Your task to perform on an android device: Set the phone to "Do not disturb". Image 0: 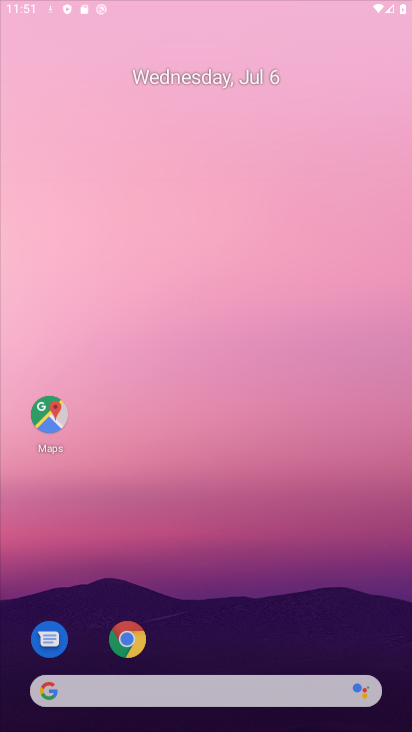
Step 0: drag from (226, 417) to (252, 330)
Your task to perform on an android device: Set the phone to "Do not disturb". Image 1: 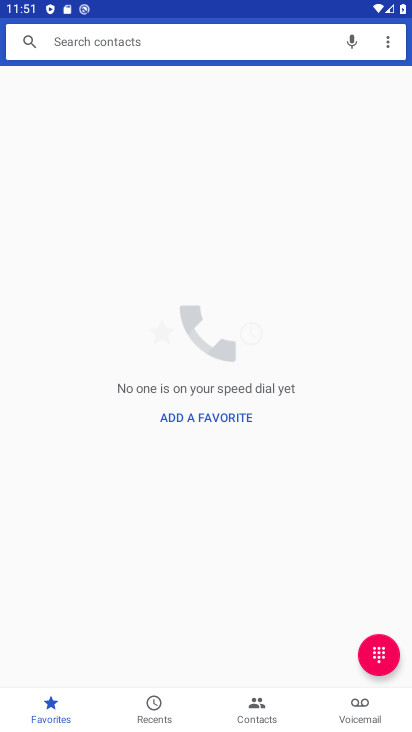
Step 1: press home button
Your task to perform on an android device: Set the phone to "Do not disturb". Image 2: 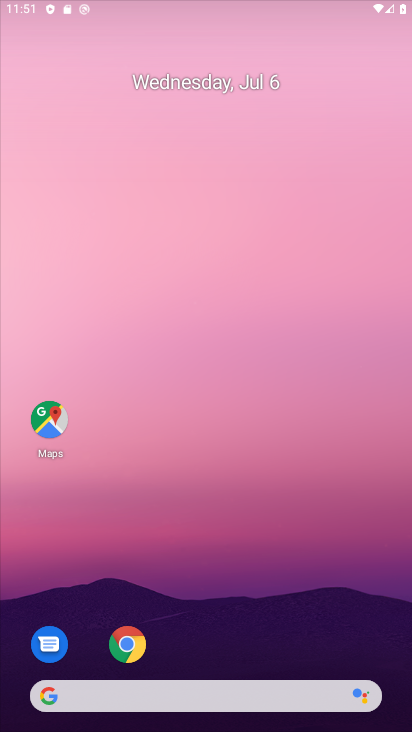
Step 2: drag from (240, 641) to (298, 145)
Your task to perform on an android device: Set the phone to "Do not disturb". Image 3: 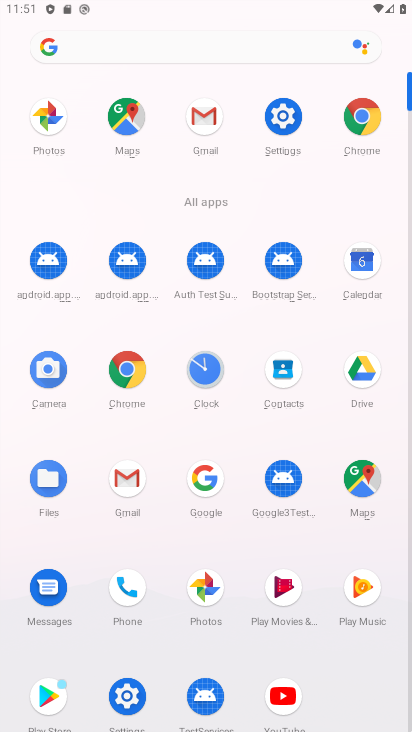
Step 3: click (283, 114)
Your task to perform on an android device: Set the phone to "Do not disturb". Image 4: 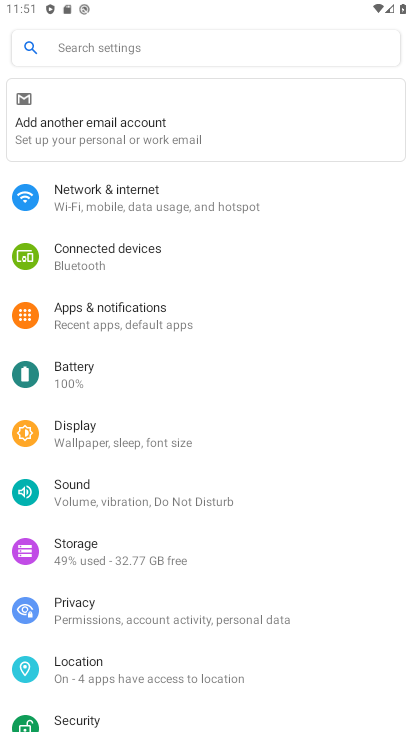
Step 4: click (176, 498)
Your task to perform on an android device: Set the phone to "Do not disturb". Image 5: 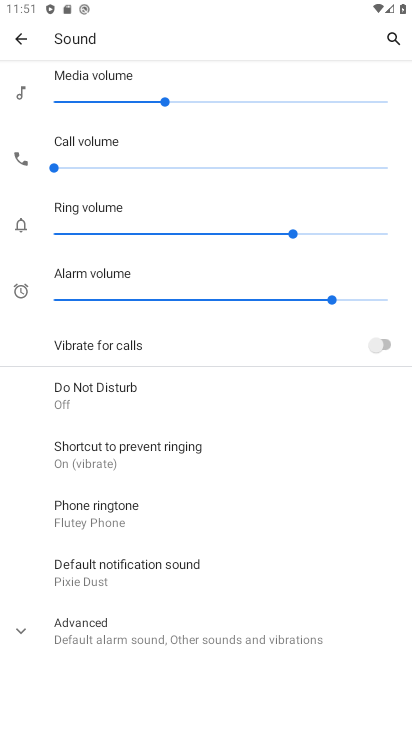
Step 5: click (96, 396)
Your task to perform on an android device: Set the phone to "Do not disturb". Image 6: 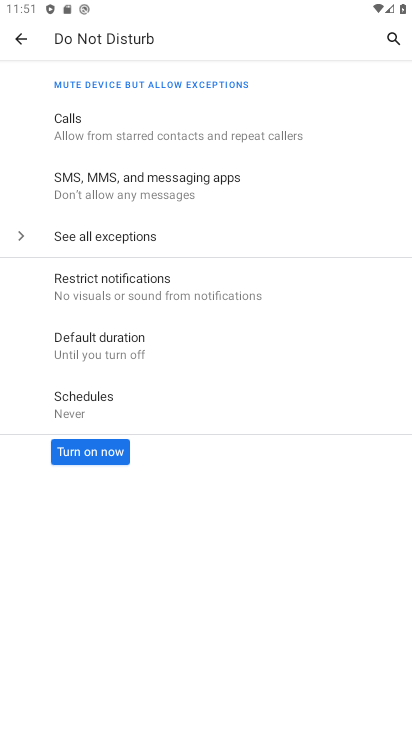
Step 6: click (88, 452)
Your task to perform on an android device: Set the phone to "Do not disturb". Image 7: 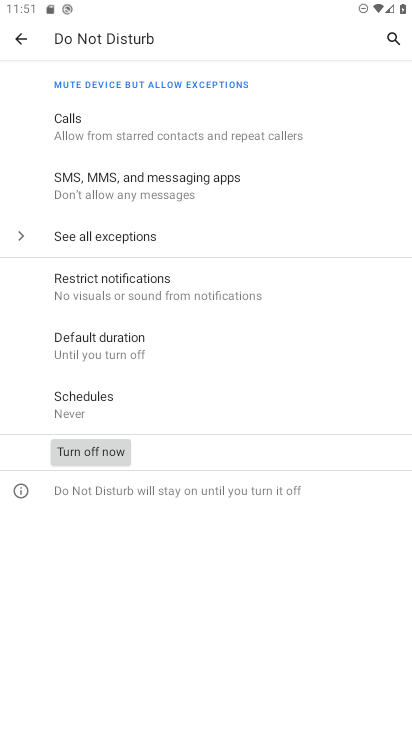
Step 7: task complete